Your task to perform on an android device: stop showing notifications on the lock screen Image 0: 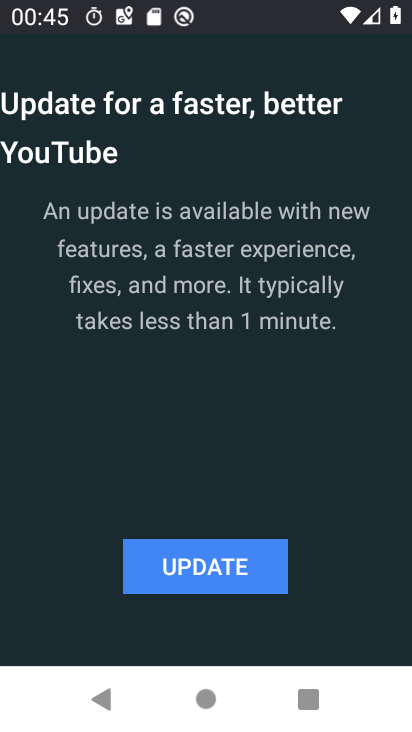
Step 0: drag from (275, 602) to (277, 352)
Your task to perform on an android device: stop showing notifications on the lock screen Image 1: 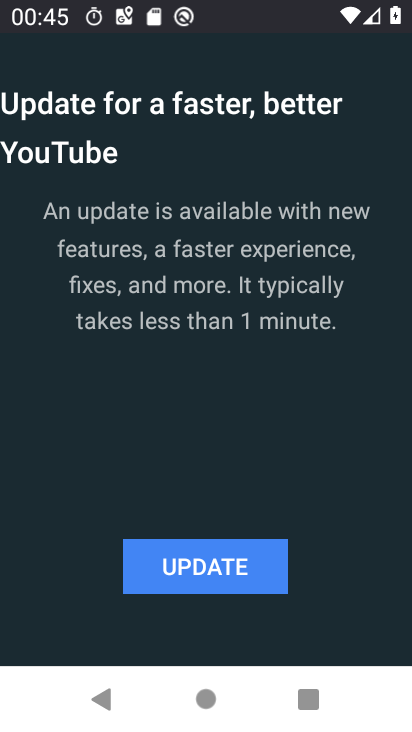
Step 1: press back button
Your task to perform on an android device: stop showing notifications on the lock screen Image 2: 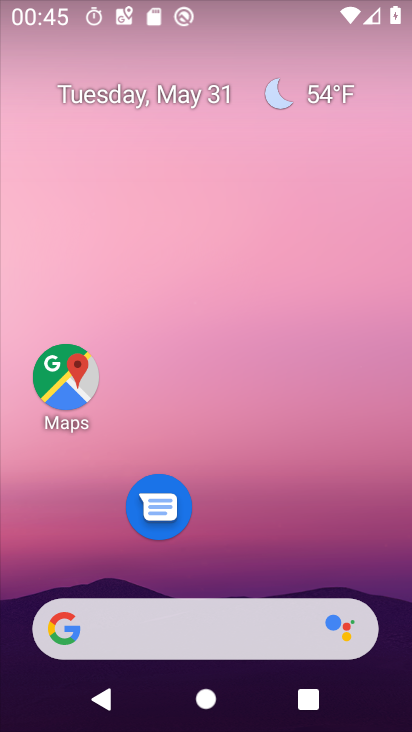
Step 2: drag from (259, 632) to (239, 193)
Your task to perform on an android device: stop showing notifications on the lock screen Image 3: 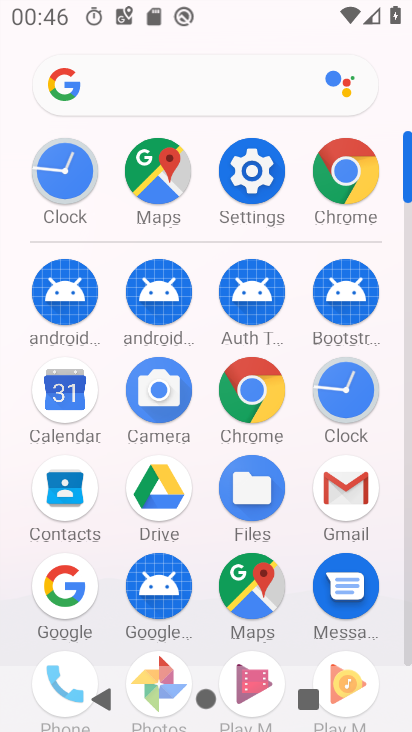
Step 3: click (253, 176)
Your task to perform on an android device: stop showing notifications on the lock screen Image 4: 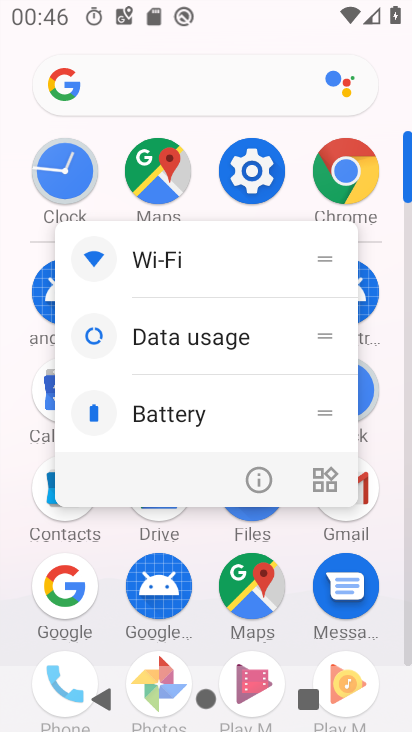
Step 4: click (251, 174)
Your task to perform on an android device: stop showing notifications on the lock screen Image 5: 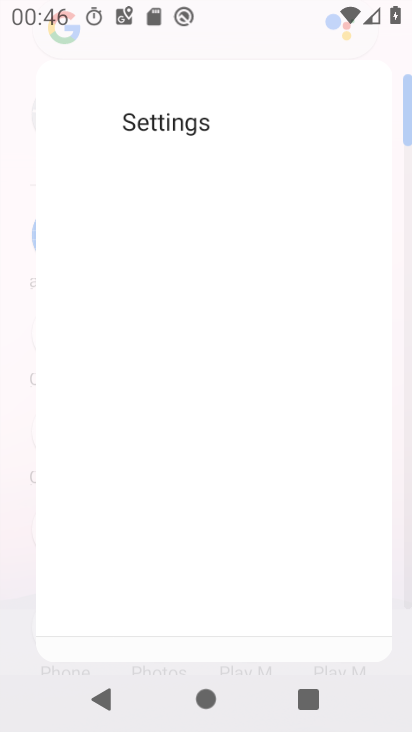
Step 5: click (251, 173)
Your task to perform on an android device: stop showing notifications on the lock screen Image 6: 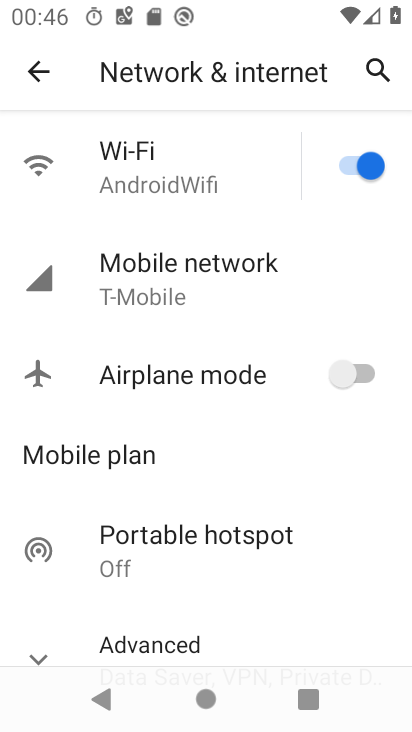
Step 6: click (31, 64)
Your task to perform on an android device: stop showing notifications on the lock screen Image 7: 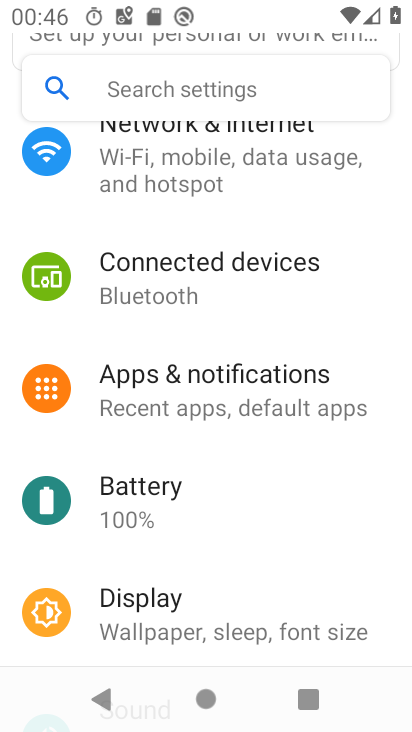
Step 7: click (35, 76)
Your task to perform on an android device: stop showing notifications on the lock screen Image 8: 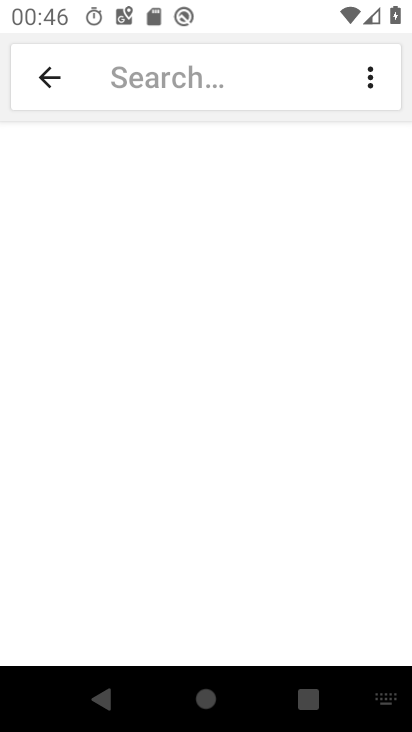
Step 8: click (229, 397)
Your task to perform on an android device: stop showing notifications on the lock screen Image 9: 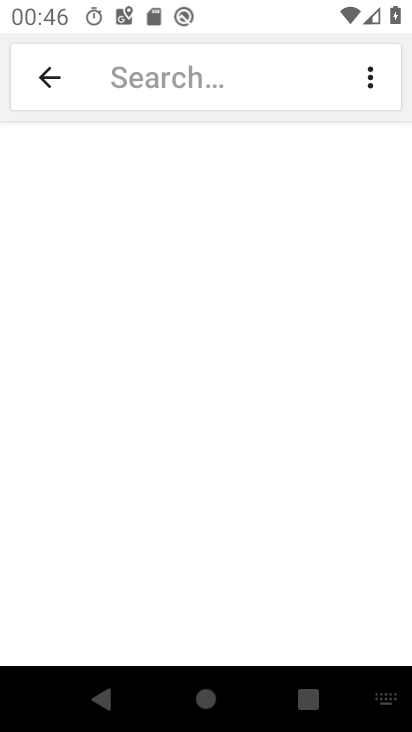
Step 9: click (231, 394)
Your task to perform on an android device: stop showing notifications on the lock screen Image 10: 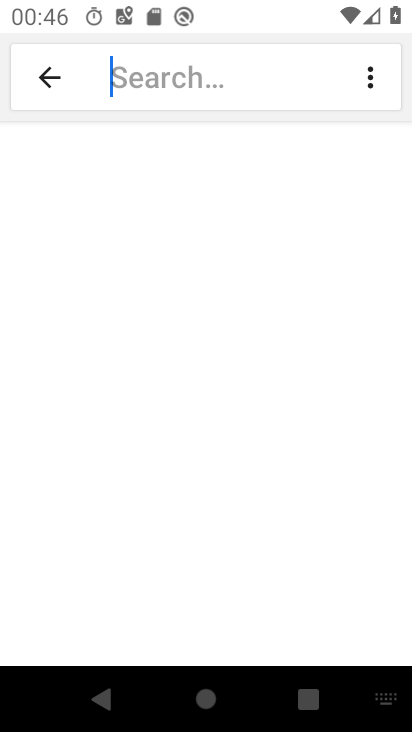
Step 10: click (230, 394)
Your task to perform on an android device: stop showing notifications on the lock screen Image 11: 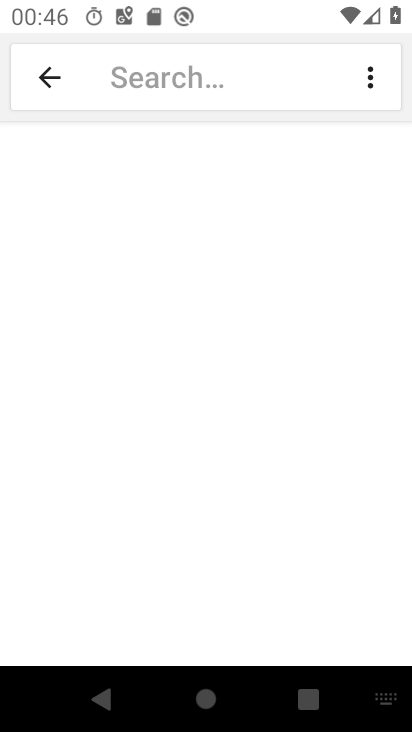
Step 11: click (230, 394)
Your task to perform on an android device: stop showing notifications on the lock screen Image 12: 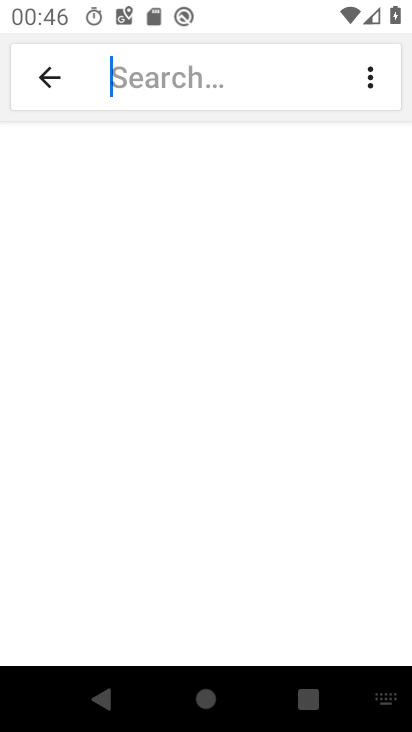
Step 12: click (43, 69)
Your task to perform on an android device: stop showing notifications on the lock screen Image 13: 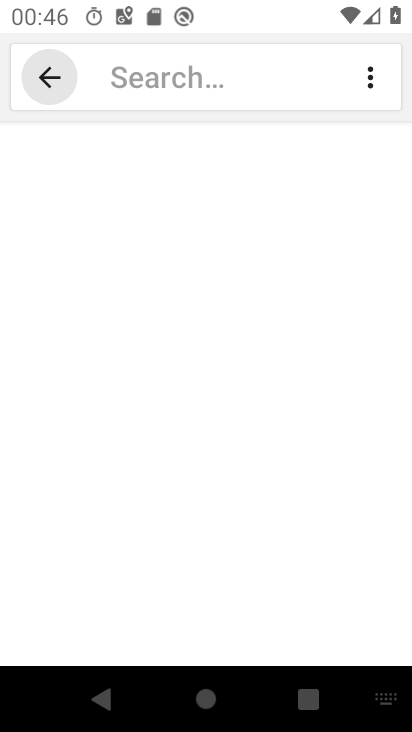
Step 13: click (46, 68)
Your task to perform on an android device: stop showing notifications on the lock screen Image 14: 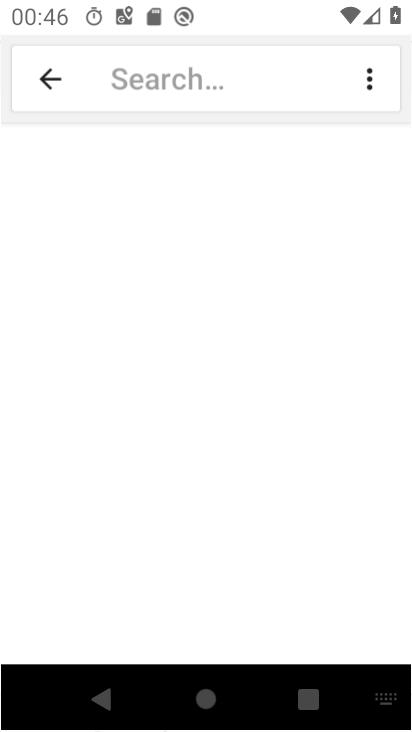
Step 14: click (44, 69)
Your task to perform on an android device: stop showing notifications on the lock screen Image 15: 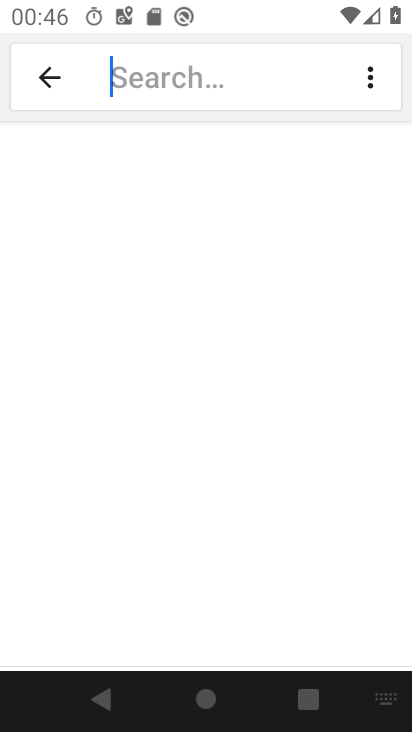
Step 15: click (53, 80)
Your task to perform on an android device: stop showing notifications on the lock screen Image 16: 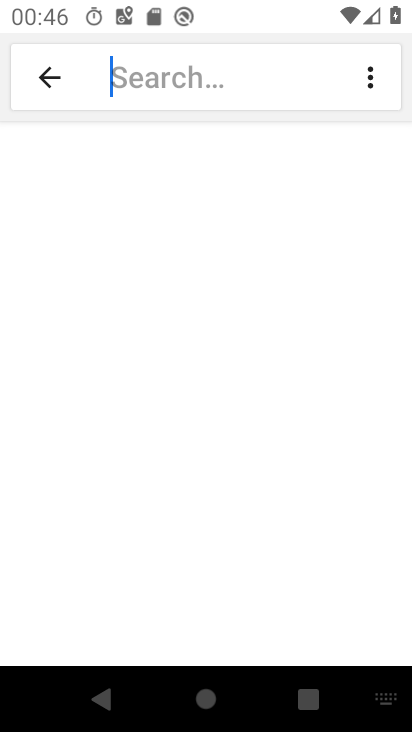
Step 16: click (49, 77)
Your task to perform on an android device: stop showing notifications on the lock screen Image 17: 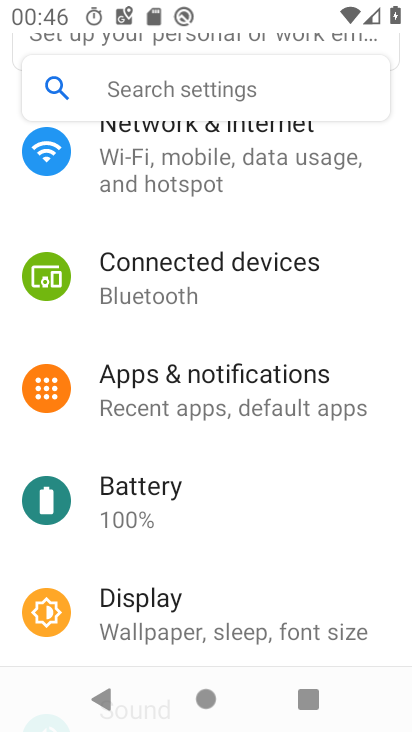
Step 17: click (187, 225)
Your task to perform on an android device: stop showing notifications on the lock screen Image 18: 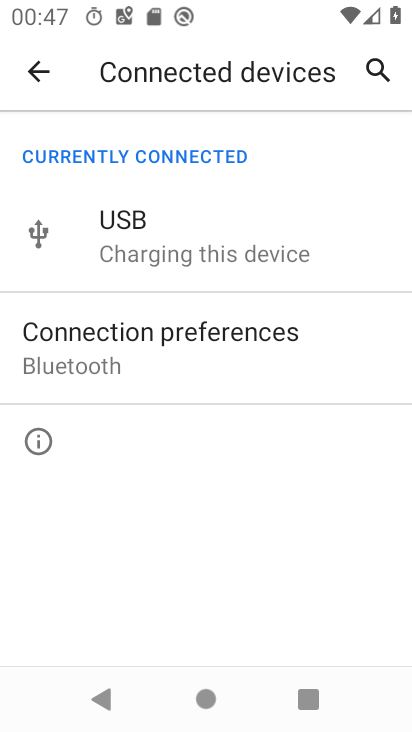
Step 18: click (181, 373)
Your task to perform on an android device: stop showing notifications on the lock screen Image 19: 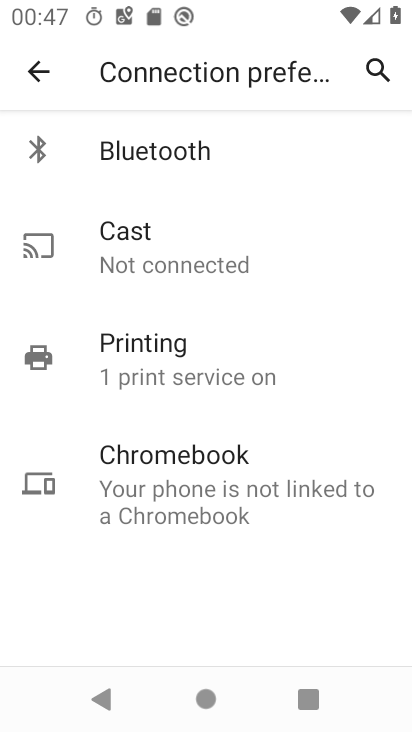
Step 19: click (192, 384)
Your task to perform on an android device: stop showing notifications on the lock screen Image 20: 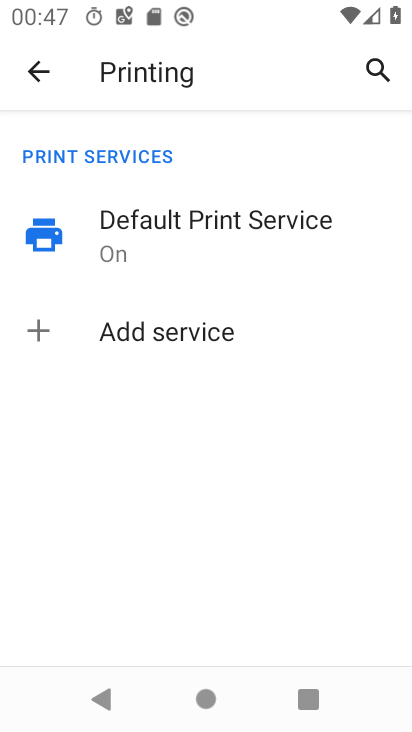
Step 20: click (199, 383)
Your task to perform on an android device: stop showing notifications on the lock screen Image 21: 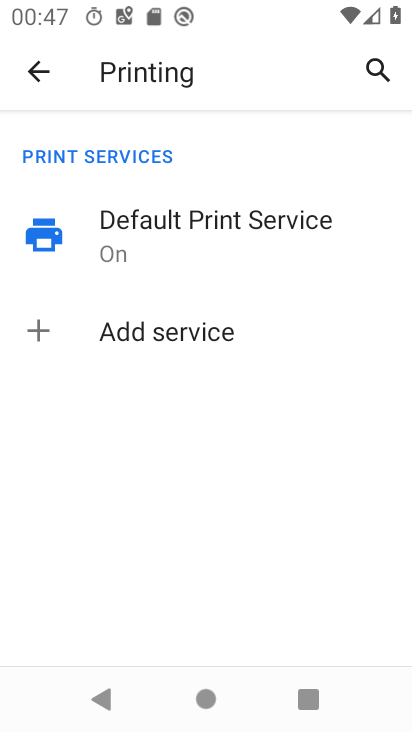
Step 21: click (200, 385)
Your task to perform on an android device: stop showing notifications on the lock screen Image 22: 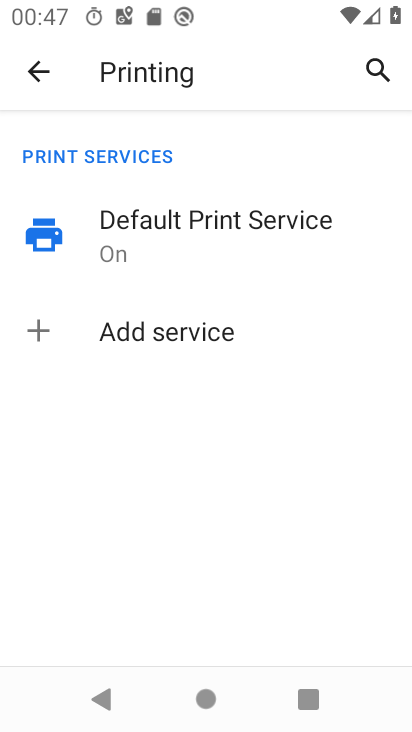
Step 22: click (212, 389)
Your task to perform on an android device: stop showing notifications on the lock screen Image 23: 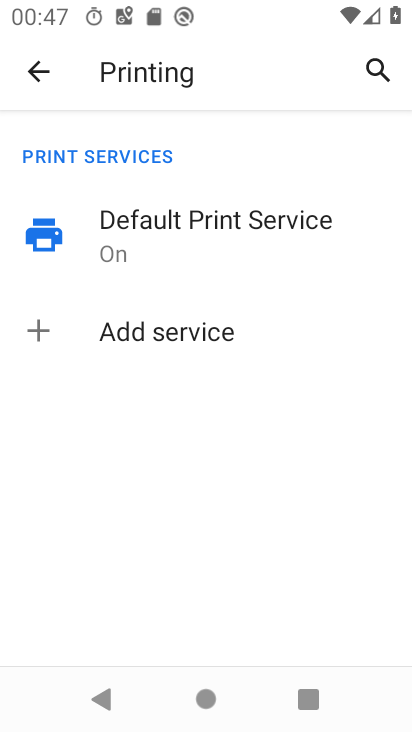
Step 23: click (213, 395)
Your task to perform on an android device: stop showing notifications on the lock screen Image 24: 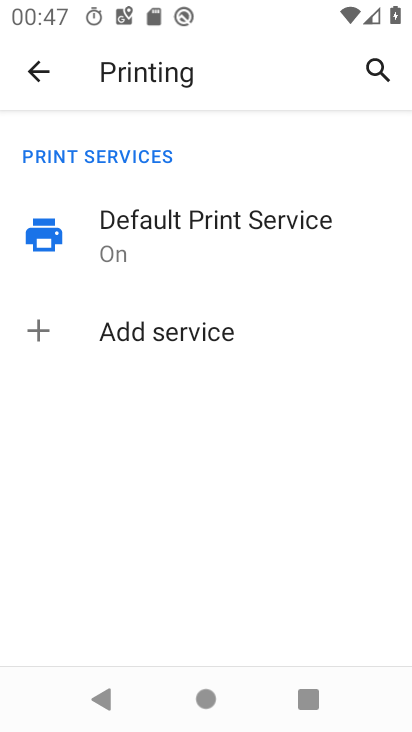
Step 24: click (30, 69)
Your task to perform on an android device: stop showing notifications on the lock screen Image 25: 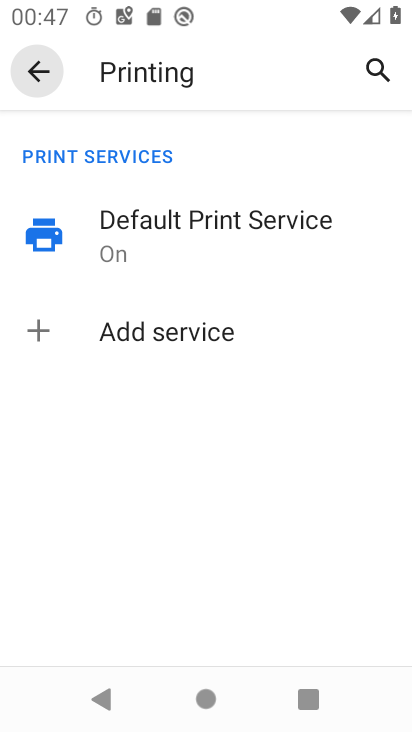
Step 25: task complete